Your task to perform on an android device: turn vacation reply on in the gmail app Image 0: 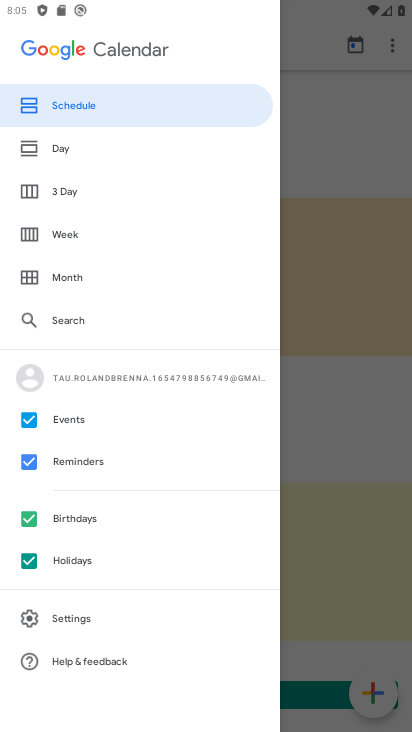
Step 0: press home button
Your task to perform on an android device: turn vacation reply on in the gmail app Image 1: 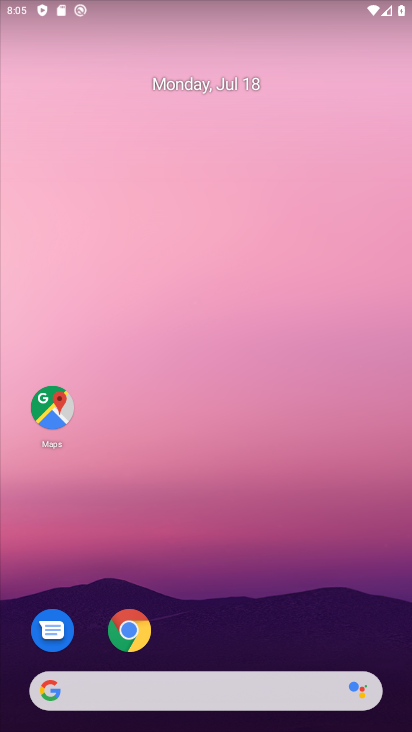
Step 1: drag from (177, 638) to (166, 88)
Your task to perform on an android device: turn vacation reply on in the gmail app Image 2: 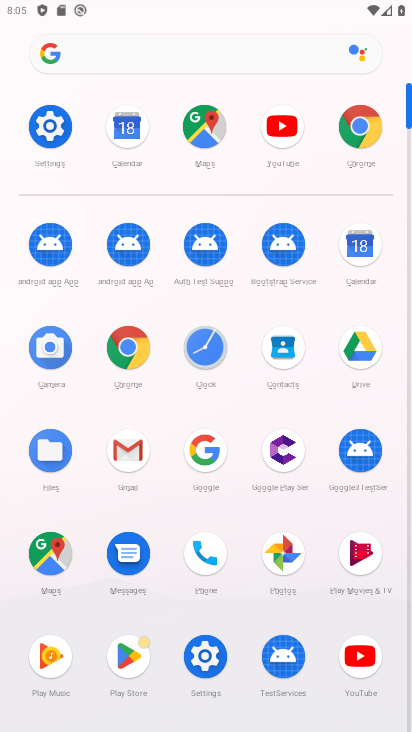
Step 2: click (121, 457)
Your task to perform on an android device: turn vacation reply on in the gmail app Image 3: 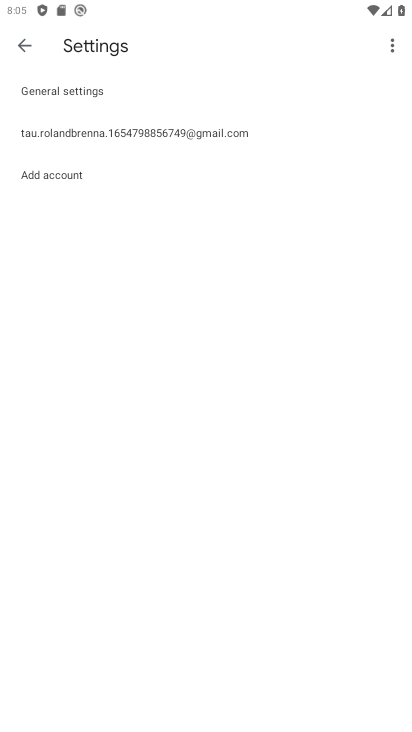
Step 3: click (93, 123)
Your task to perform on an android device: turn vacation reply on in the gmail app Image 4: 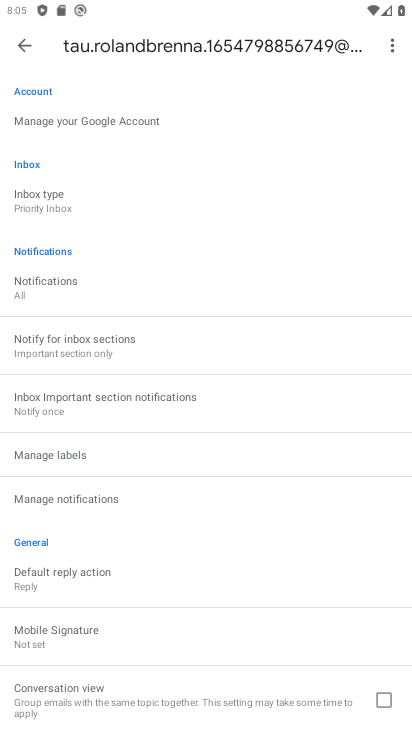
Step 4: drag from (124, 595) to (153, 344)
Your task to perform on an android device: turn vacation reply on in the gmail app Image 5: 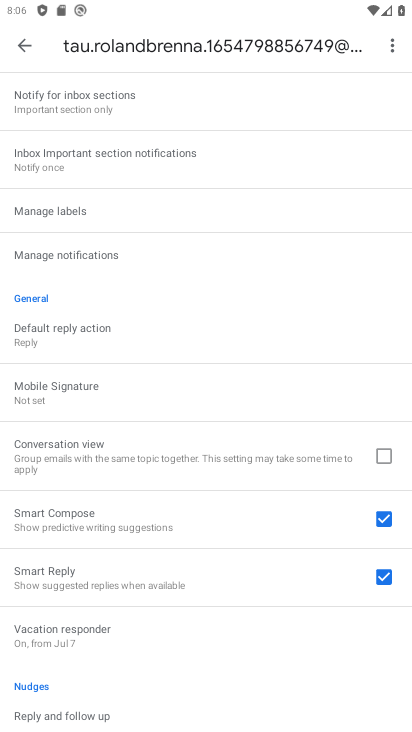
Step 5: click (143, 619)
Your task to perform on an android device: turn vacation reply on in the gmail app Image 6: 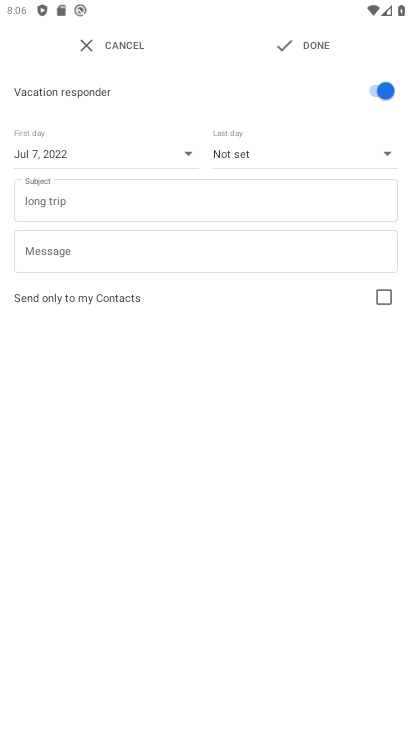
Step 6: task complete